Your task to perform on an android device: Open location settings Image 0: 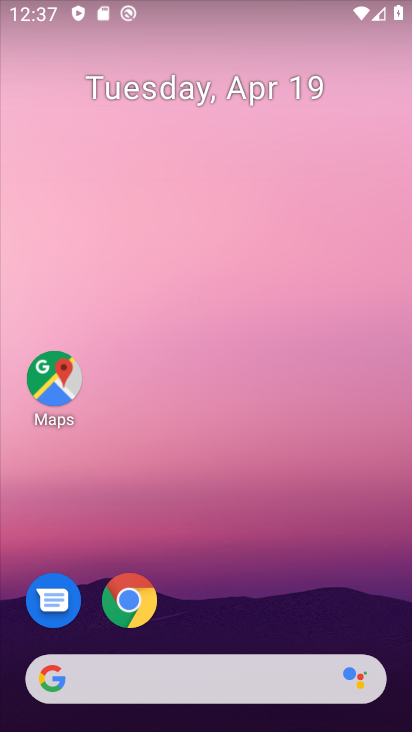
Step 0: drag from (217, 629) to (187, 45)
Your task to perform on an android device: Open location settings Image 1: 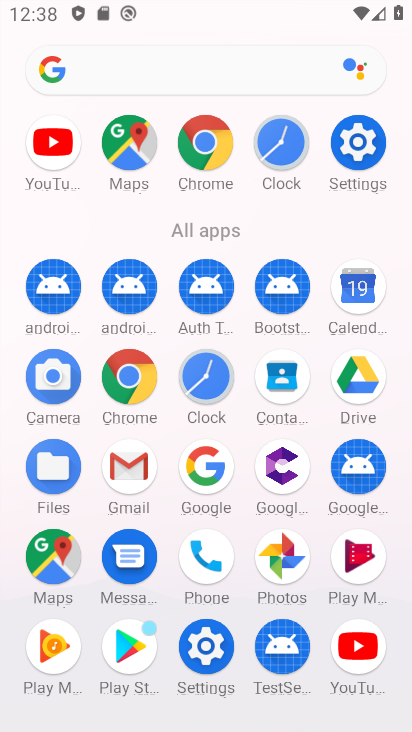
Step 1: click (347, 175)
Your task to perform on an android device: Open location settings Image 2: 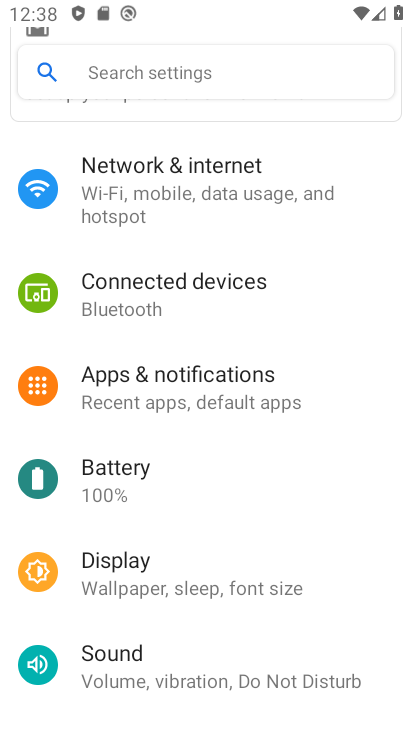
Step 2: drag from (201, 550) to (193, 159)
Your task to perform on an android device: Open location settings Image 3: 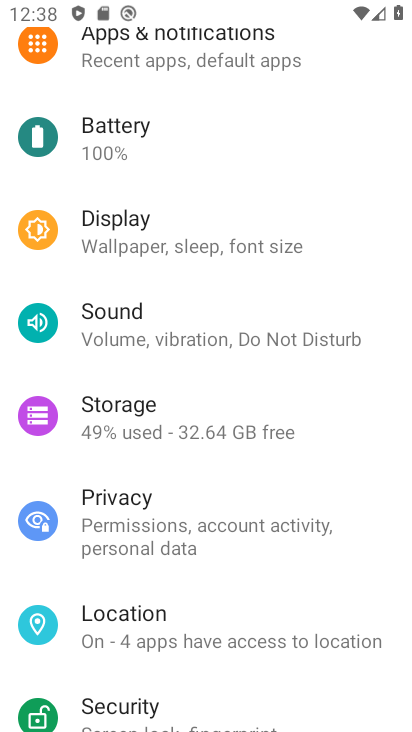
Step 3: click (164, 614)
Your task to perform on an android device: Open location settings Image 4: 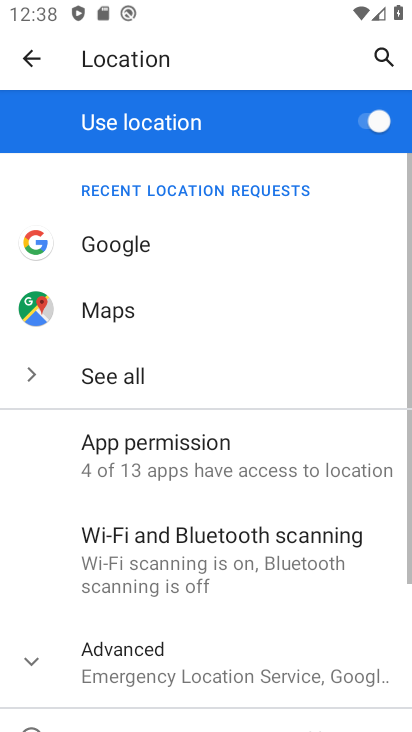
Step 4: drag from (166, 612) to (134, 271)
Your task to perform on an android device: Open location settings Image 5: 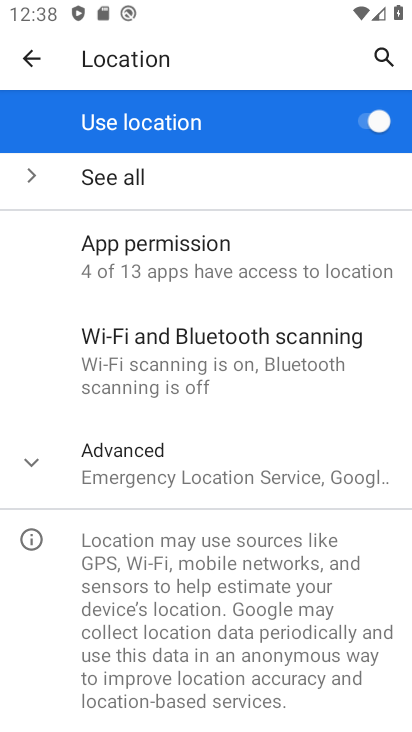
Step 5: click (141, 478)
Your task to perform on an android device: Open location settings Image 6: 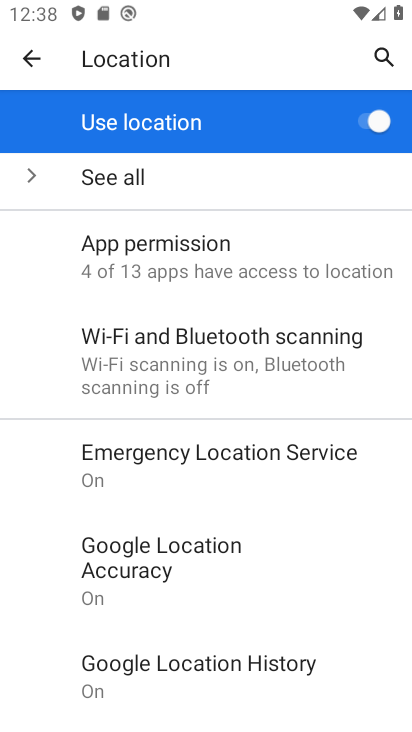
Step 6: task complete